Your task to perform on an android device: Open display settings Image 0: 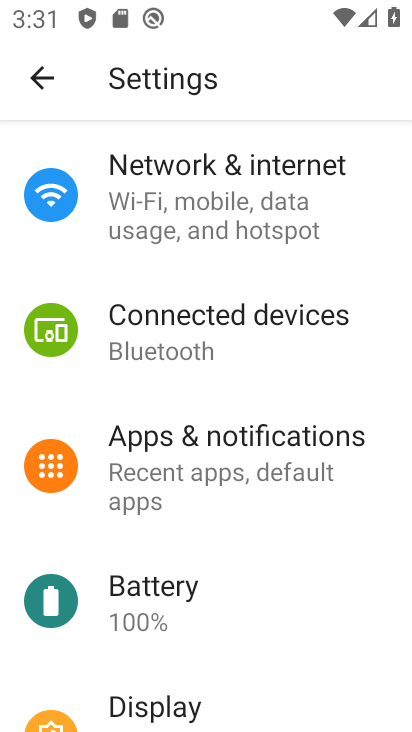
Step 0: press home button
Your task to perform on an android device: Open display settings Image 1: 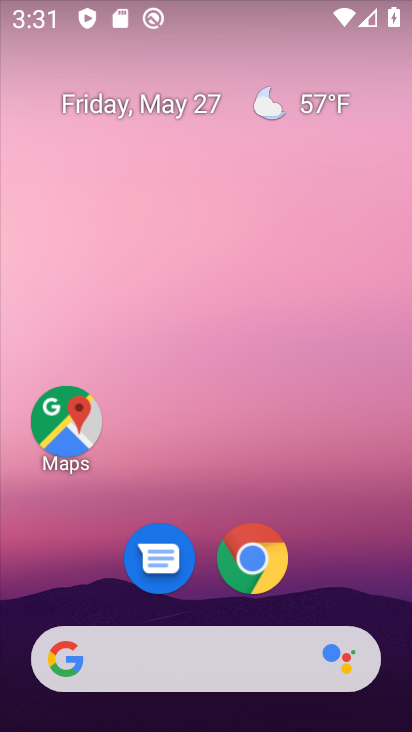
Step 1: drag from (337, 561) to (312, 146)
Your task to perform on an android device: Open display settings Image 2: 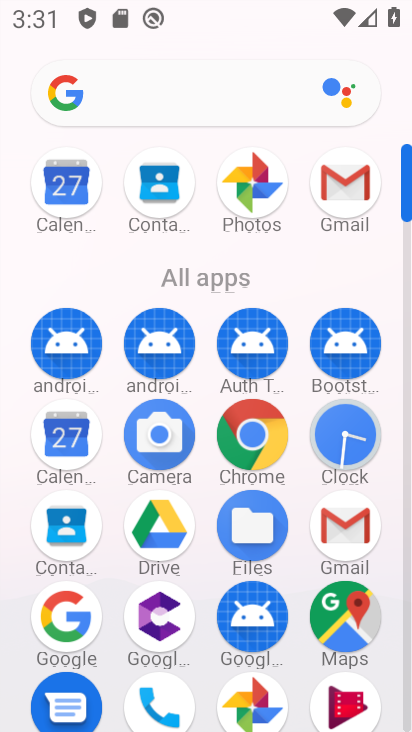
Step 2: click (405, 690)
Your task to perform on an android device: Open display settings Image 3: 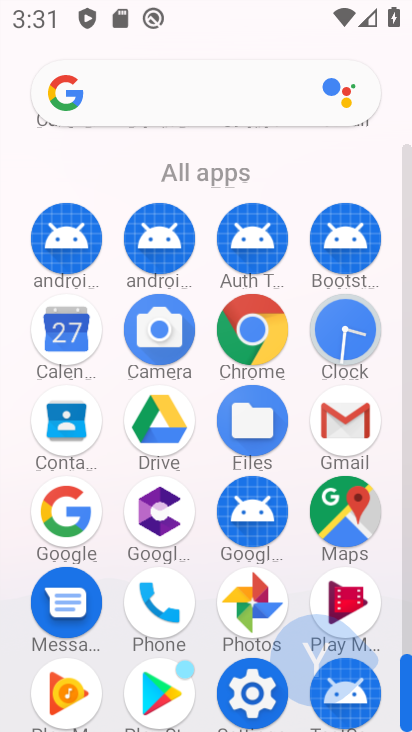
Step 3: click (405, 690)
Your task to perform on an android device: Open display settings Image 4: 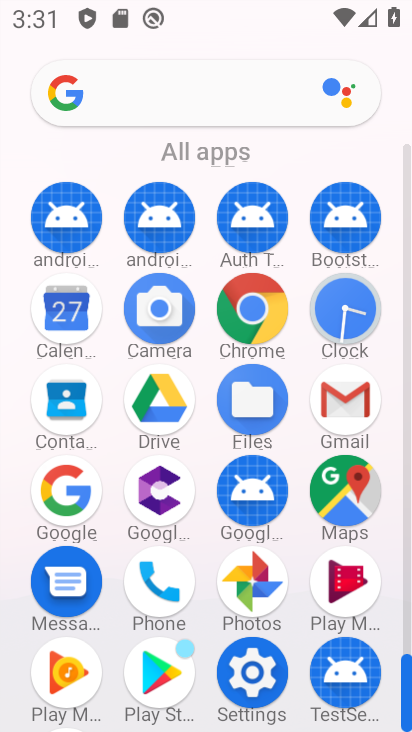
Step 4: click (264, 680)
Your task to perform on an android device: Open display settings Image 5: 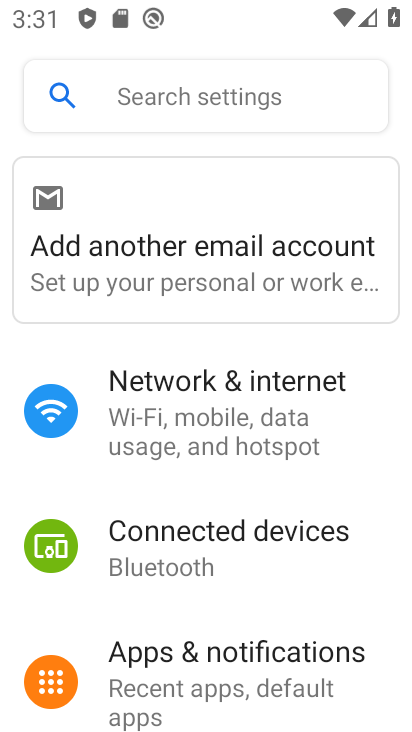
Step 5: drag from (271, 621) to (278, 175)
Your task to perform on an android device: Open display settings Image 6: 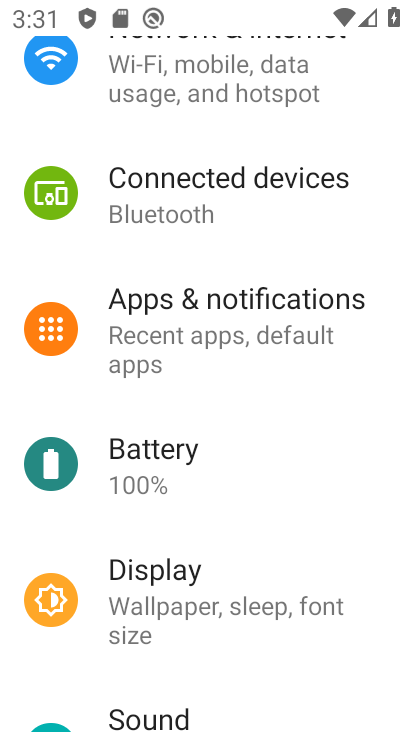
Step 6: drag from (246, 577) to (267, 231)
Your task to perform on an android device: Open display settings Image 7: 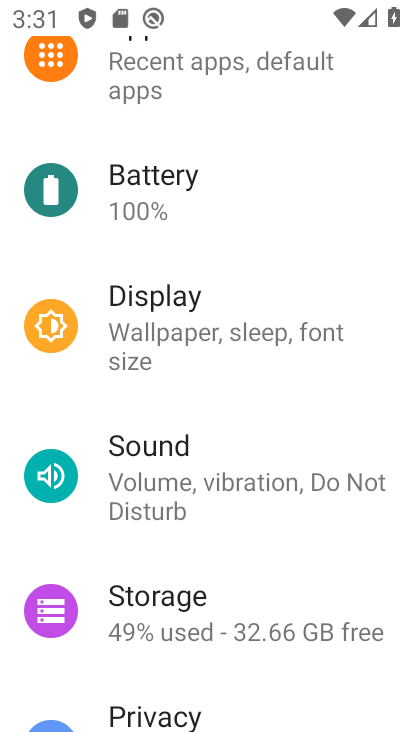
Step 7: drag from (214, 600) to (217, 516)
Your task to perform on an android device: Open display settings Image 8: 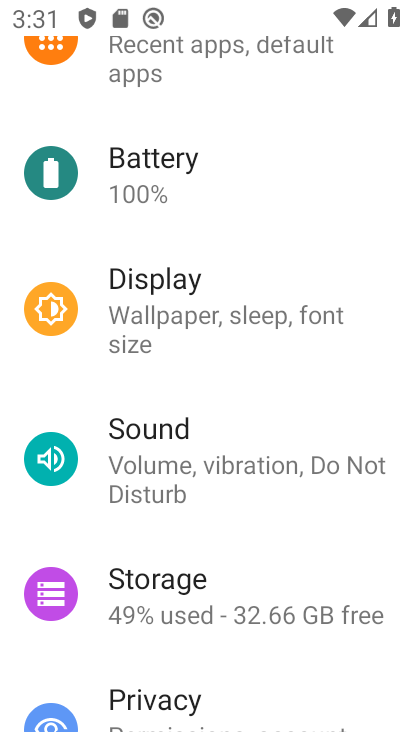
Step 8: click (241, 284)
Your task to perform on an android device: Open display settings Image 9: 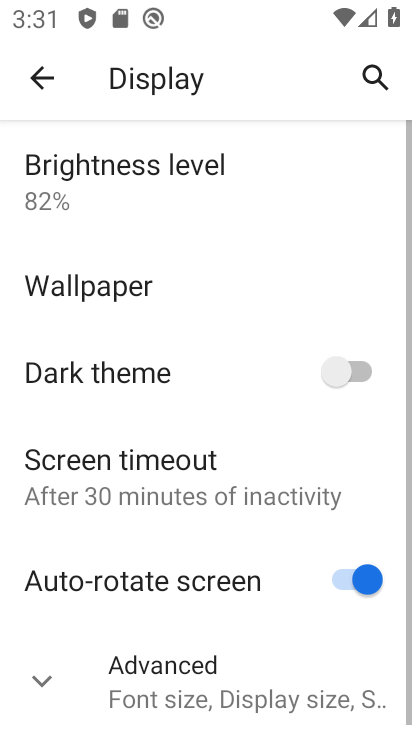
Step 9: task complete